Your task to perform on an android device: toggle translation in the chrome app Image 0: 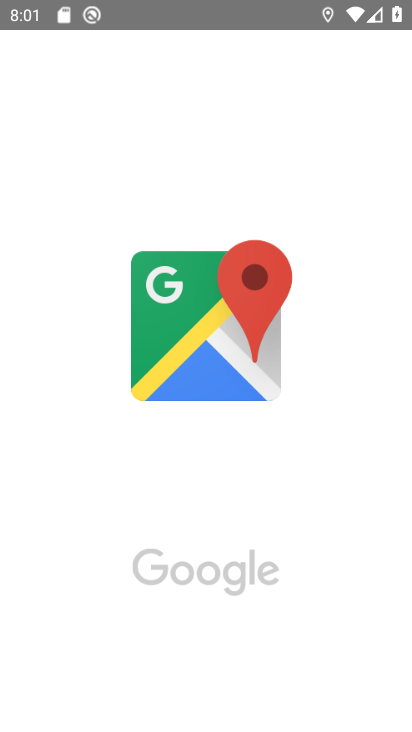
Step 0: drag from (365, 597) to (314, 251)
Your task to perform on an android device: toggle translation in the chrome app Image 1: 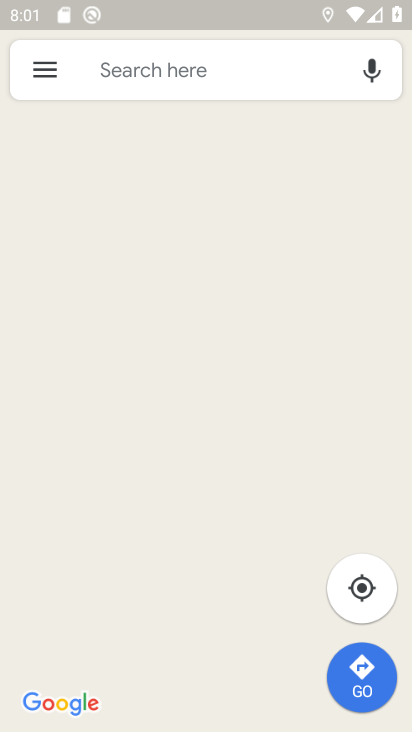
Step 1: press home button
Your task to perform on an android device: toggle translation in the chrome app Image 2: 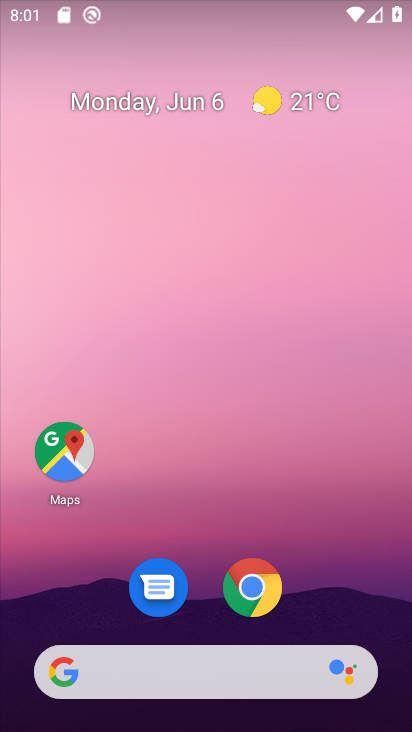
Step 2: drag from (319, 578) to (350, 150)
Your task to perform on an android device: toggle translation in the chrome app Image 3: 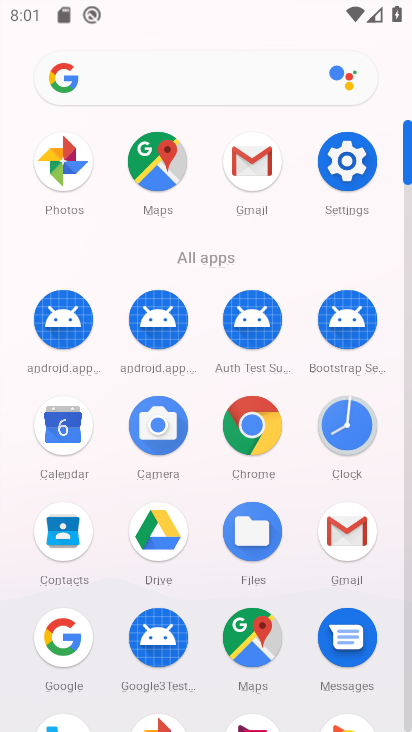
Step 3: click (233, 440)
Your task to perform on an android device: toggle translation in the chrome app Image 4: 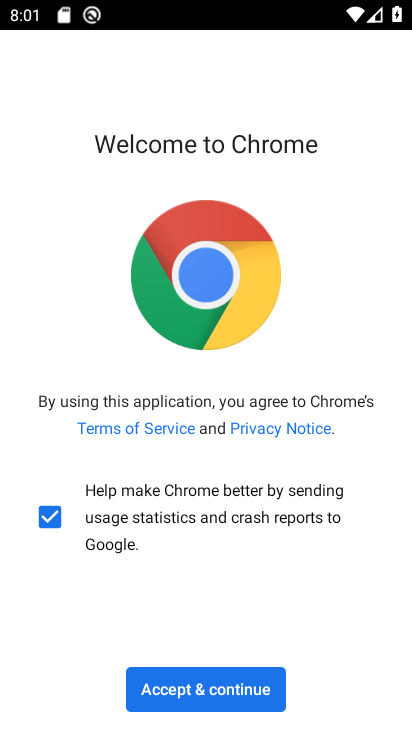
Step 4: click (259, 684)
Your task to perform on an android device: toggle translation in the chrome app Image 5: 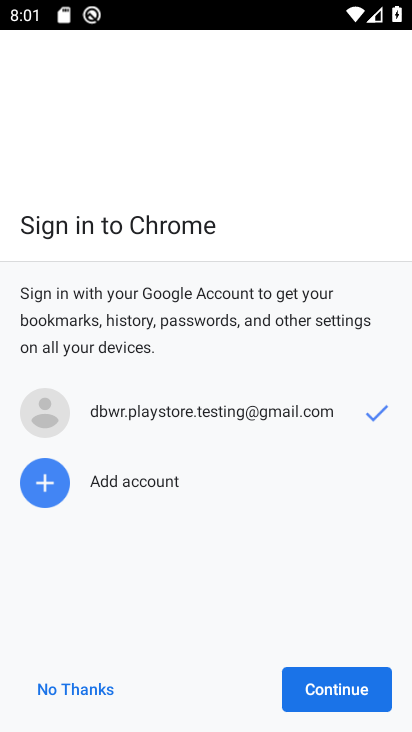
Step 5: click (296, 698)
Your task to perform on an android device: toggle translation in the chrome app Image 6: 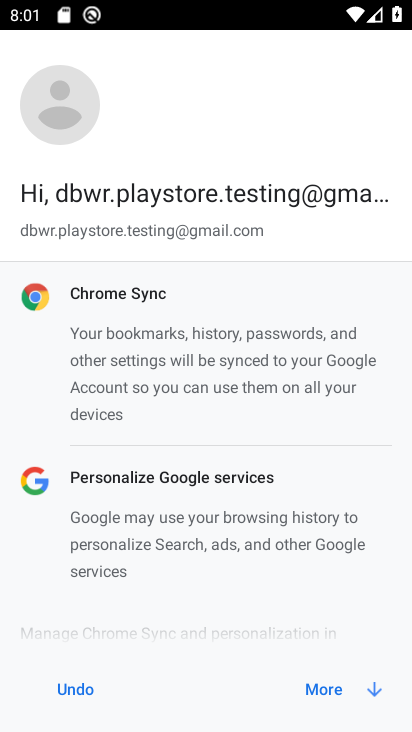
Step 6: click (313, 695)
Your task to perform on an android device: toggle translation in the chrome app Image 7: 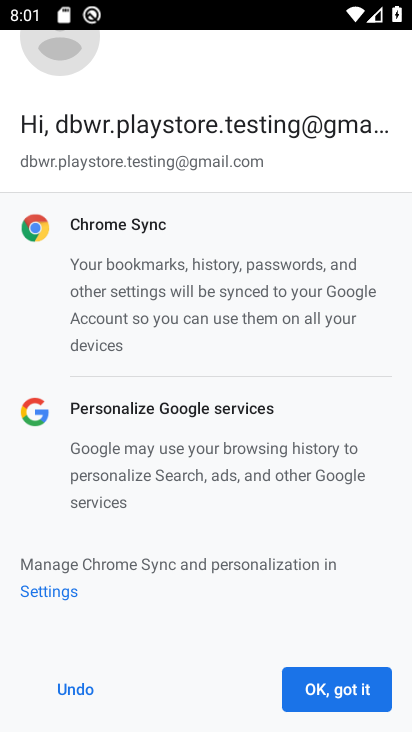
Step 7: click (344, 692)
Your task to perform on an android device: toggle translation in the chrome app Image 8: 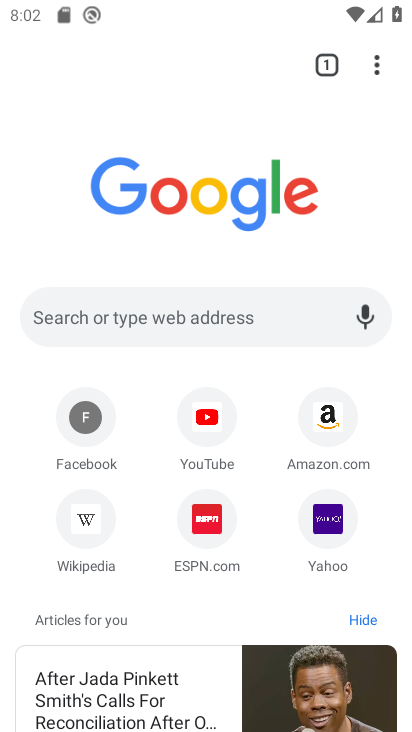
Step 8: drag from (379, 78) to (163, 549)
Your task to perform on an android device: toggle translation in the chrome app Image 9: 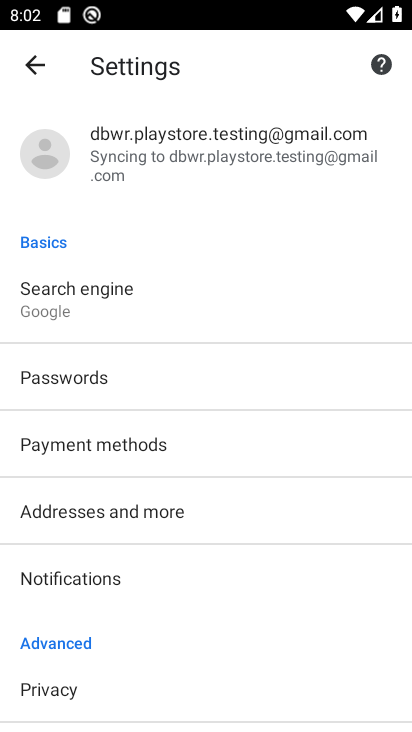
Step 9: drag from (172, 643) to (275, 318)
Your task to perform on an android device: toggle translation in the chrome app Image 10: 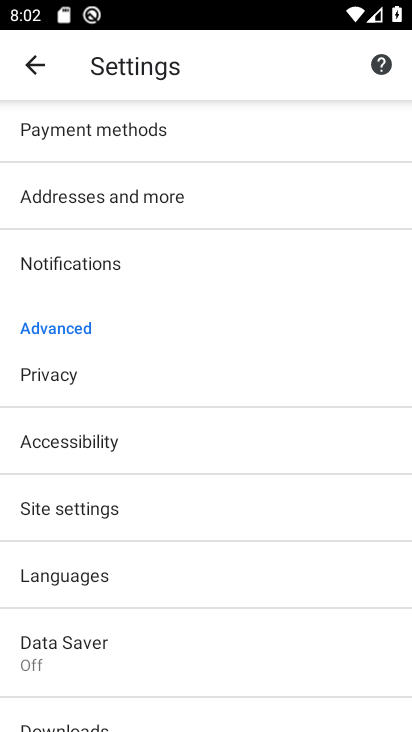
Step 10: click (120, 573)
Your task to perform on an android device: toggle translation in the chrome app Image 11: 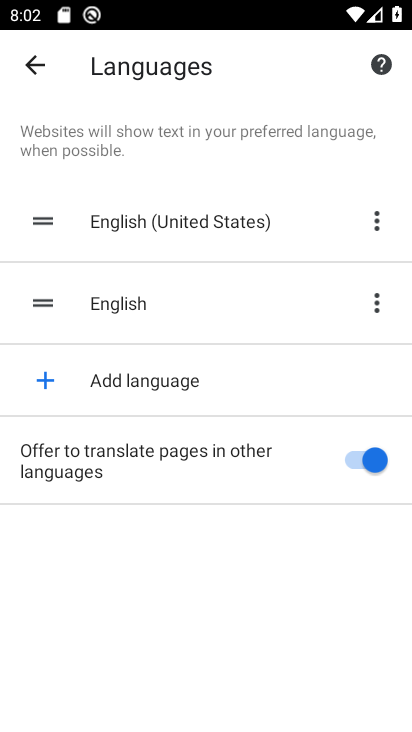
Step 11: click (355, 457)
Your task to perform on an android device: toggle translation in the chrome app Image 12: 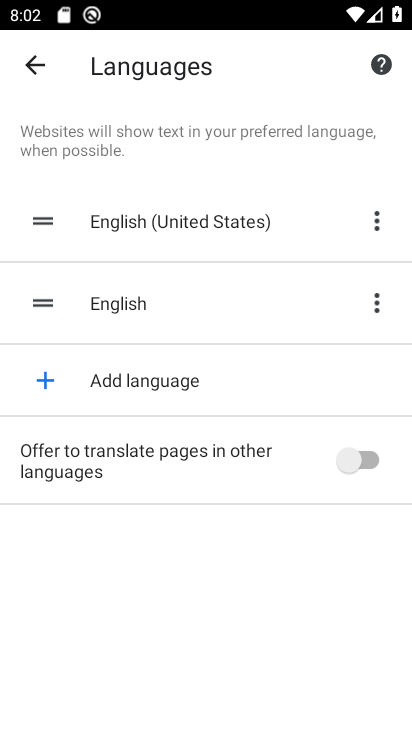
Step 12: task complete